Your task to perform on an android device: Go to battery settings Image 0: 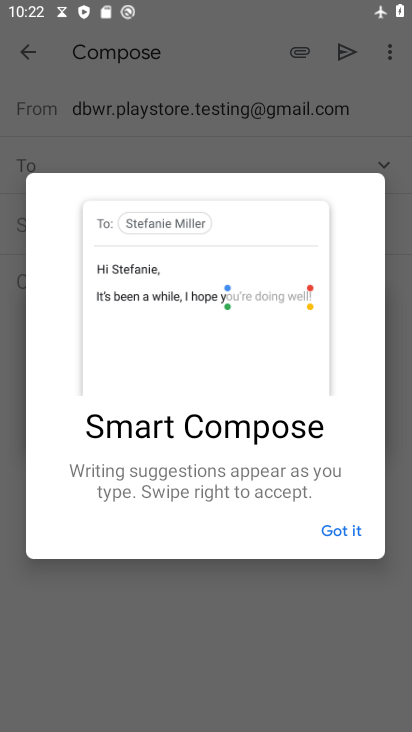
Step 0: press home button
Your task to perform on an android device: Go to battery settings Image 1: 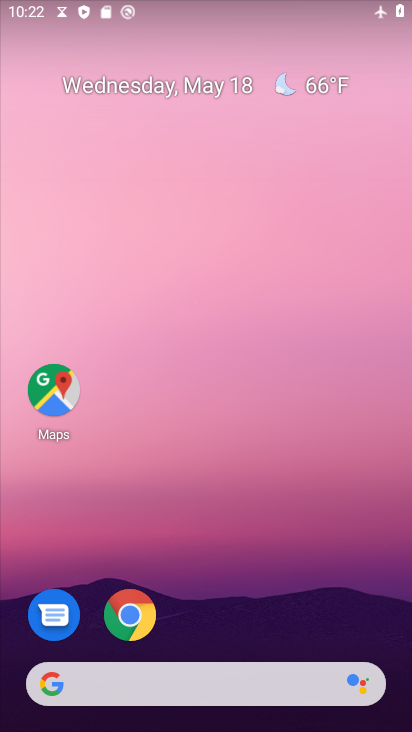
Step 1: drag from (242, 591) to (195, 48)
Your task to perform on an android device: Go to battery settings Image 2: 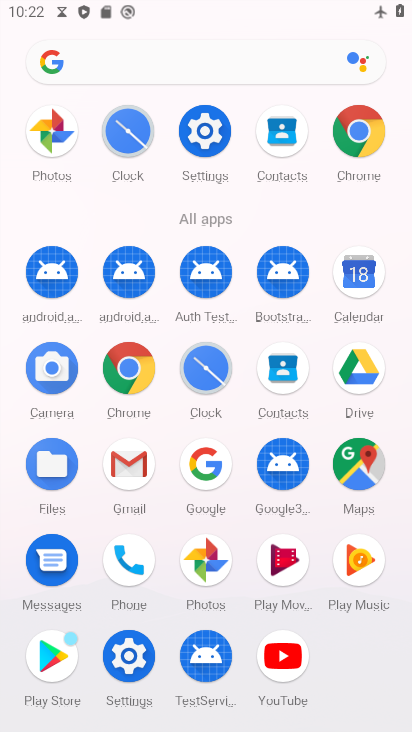
Step 2: click (206, 126)
Your task to perform on an android device: Go to battery settings Image 3: 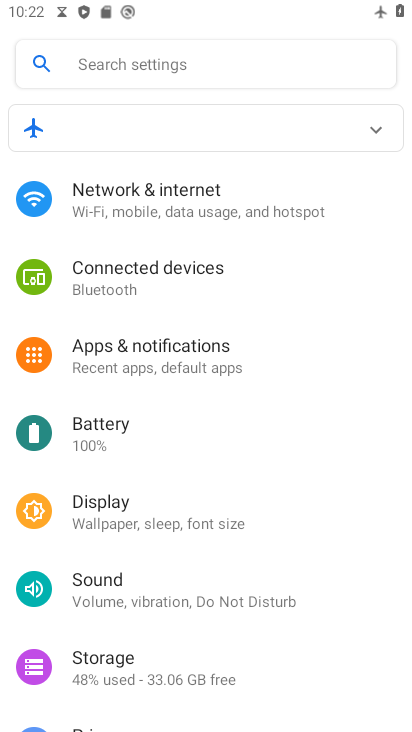
Step 3: click (129, 432)
Your task to perform on an android device: Go to battery settings Image 4: 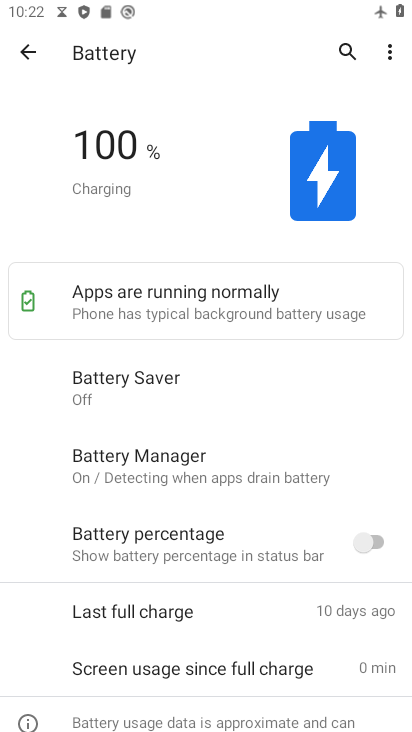
Step 4: click (127, 429)
Your task to perform on an android device: Go to battery settings Image 5: 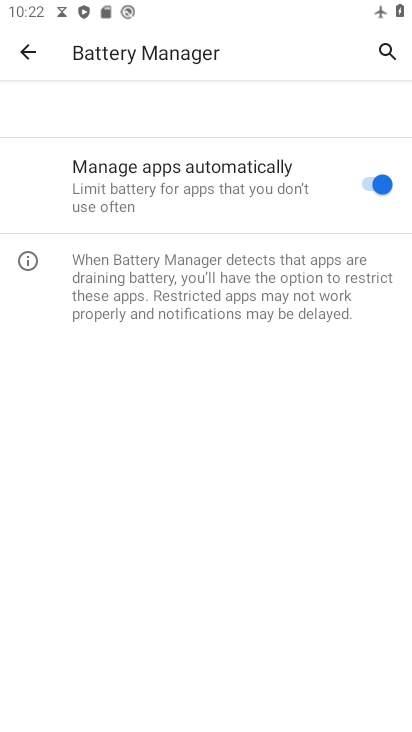
Step 5: click (28, 53)
Your task to perform on an android device: Go to battery settings Image 6: 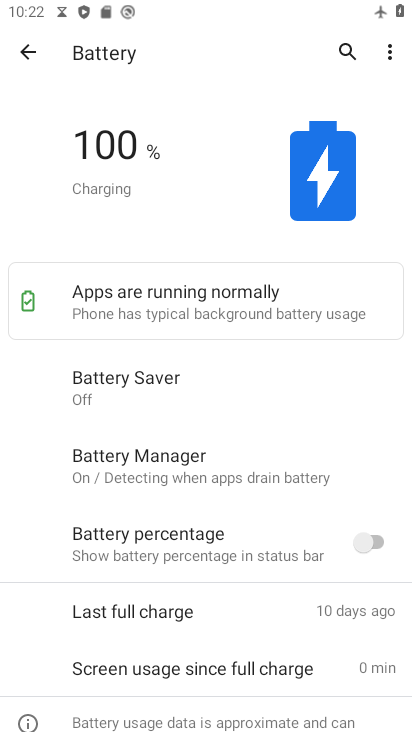
Step 6: task complete